Your task to perform on an android device: check out phone information Image 0: 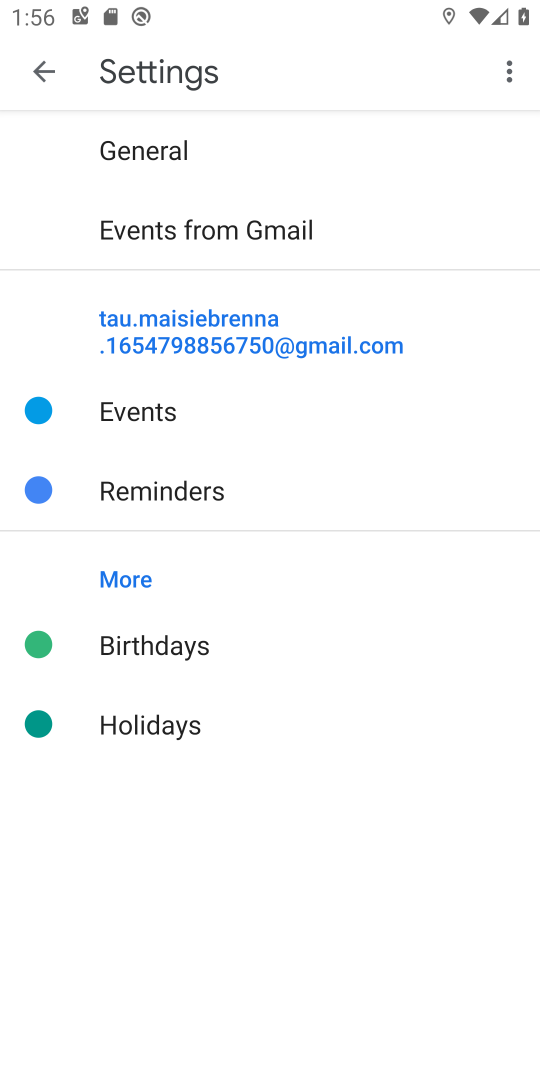
Step 0: press home button
Your task to perform on an android device: check out phone information Image 1: 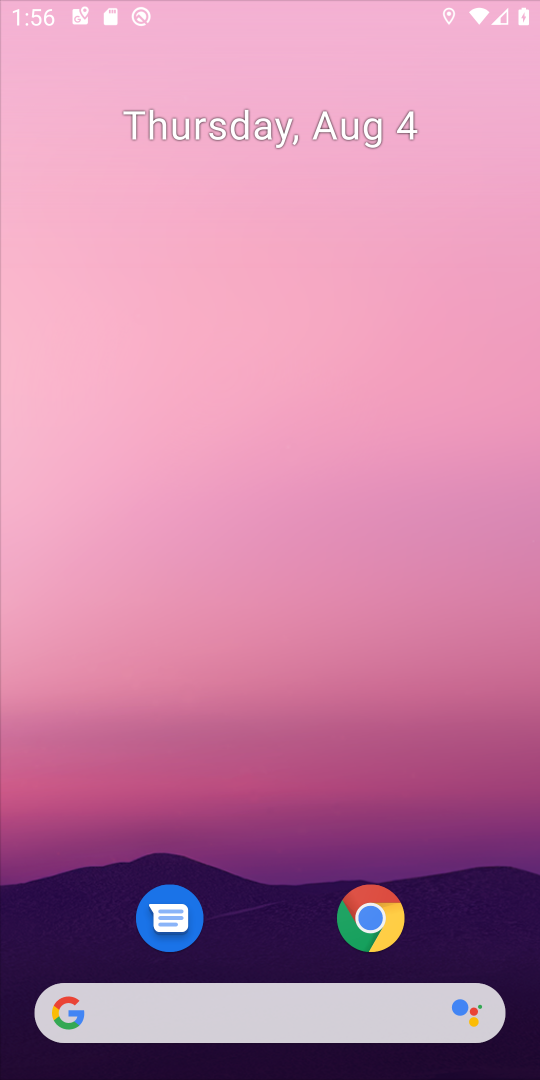
Step 1: press home button
Your task to perform on an android device: check out phone information Image 2: 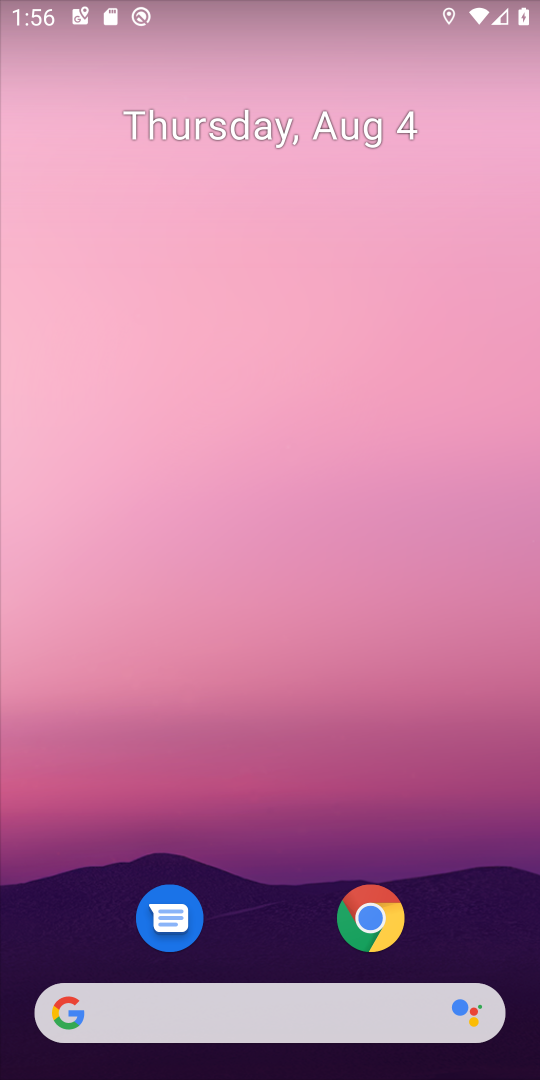
Step 2: drag from (280, 862) to (282, 405)
Your task to perform on an android device: check out phone information Image 3: 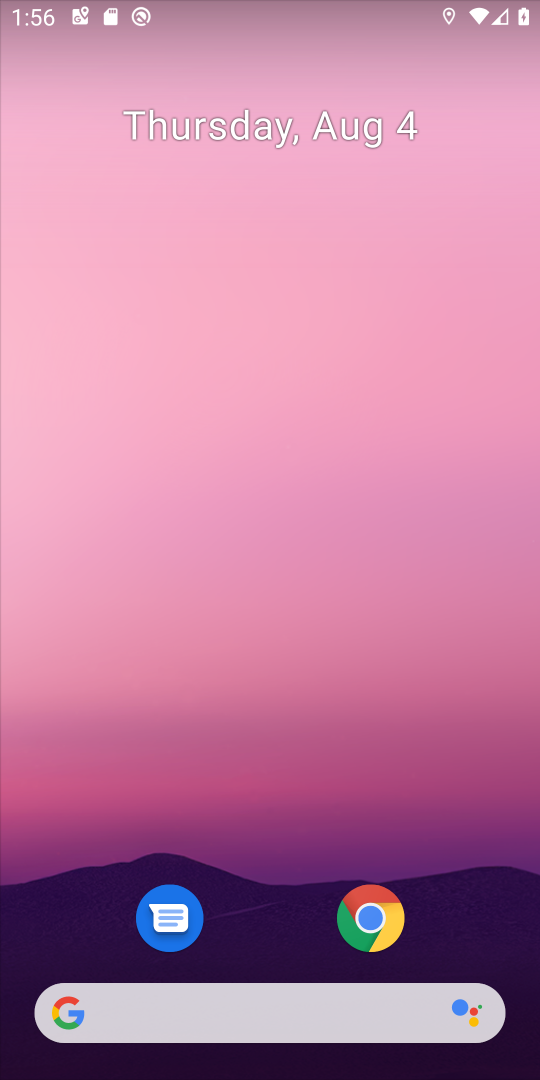
Step 3: drag from (267, 901) to (267, 291)
Your task to perform on an android device: check out phone information Image 4: 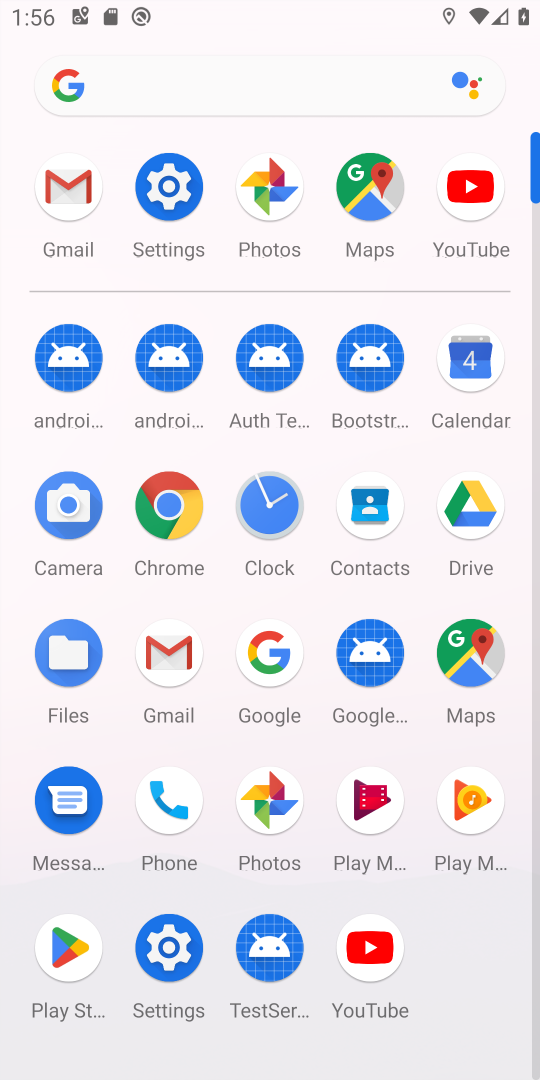
Step 4: click (195, 207)
Your task to perform on an android device: check out phone information Image 5: 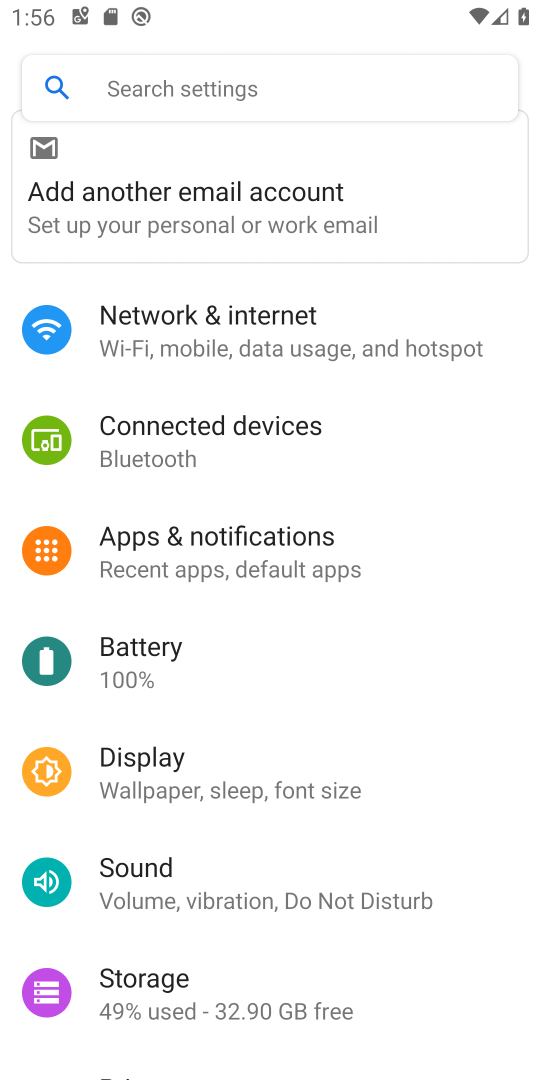
Step 5: drag from (243, 974) to (228, 450)
Your task to perform on an android device: check out phone information Image 6: 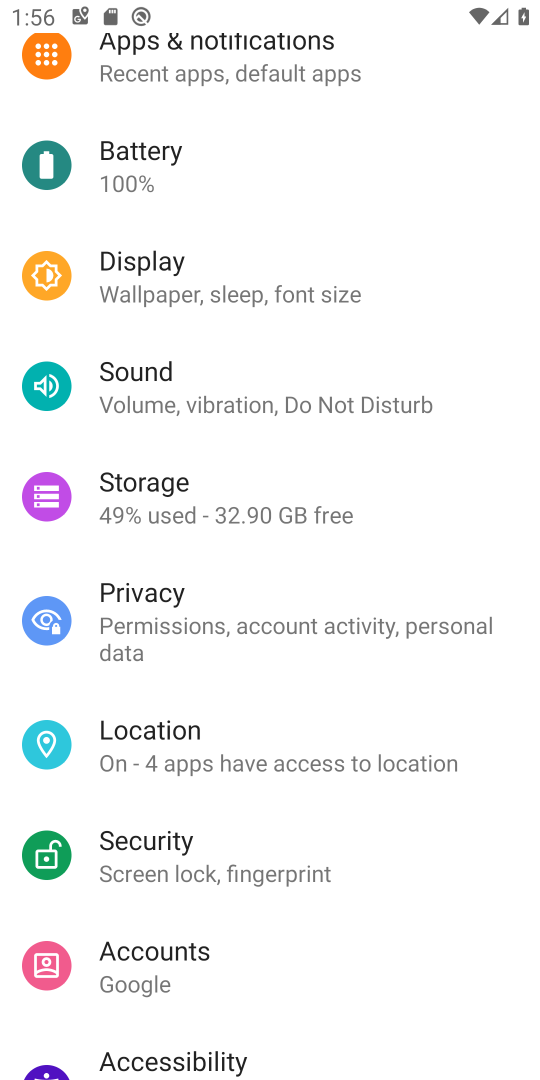
Step 6: drag from (245, 941) to (234, 570)
Your task to perform on an android device: check out phone information Image 7: 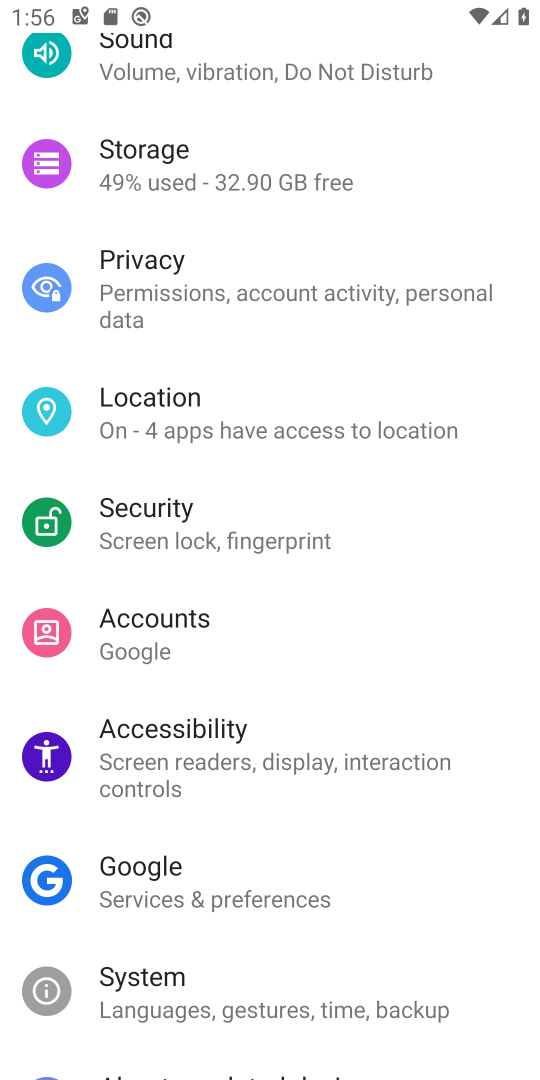
Step 7: drag from (257, 989) to (256, 609)
Your task to perform on an android device: check out phone information Image 8: 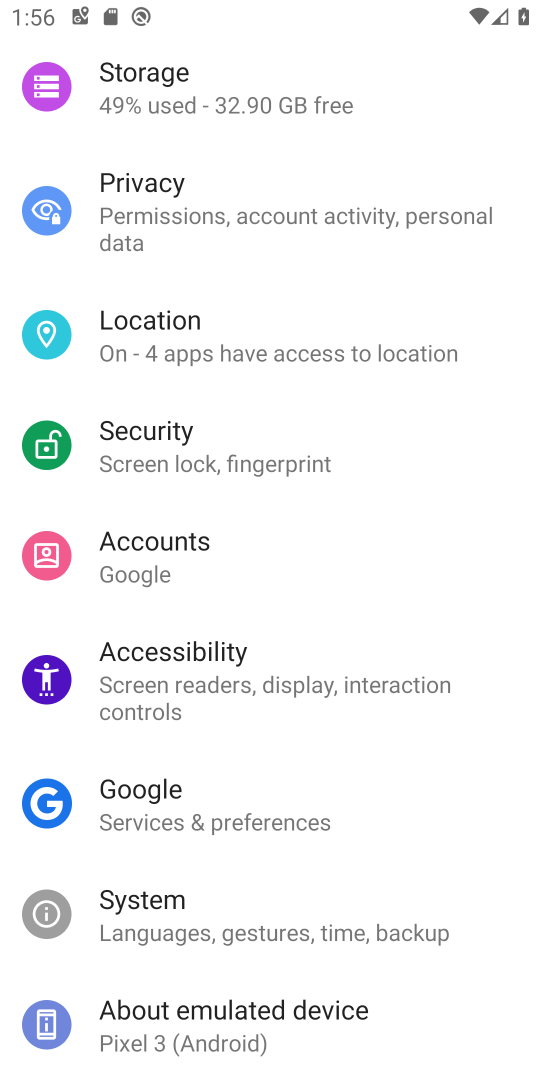
Step 8: click (248, 1008)
Your task to perform on an android device: check out phone information Image 9: 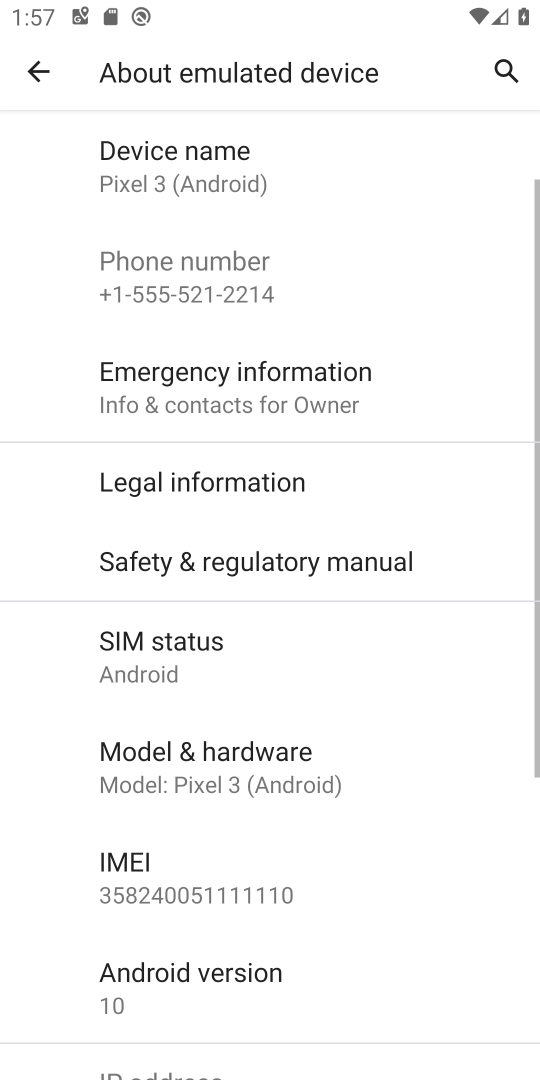
Step 9: task complete